Your task to perform on an android device: Search for Italian restaurants on Maps Image 0: 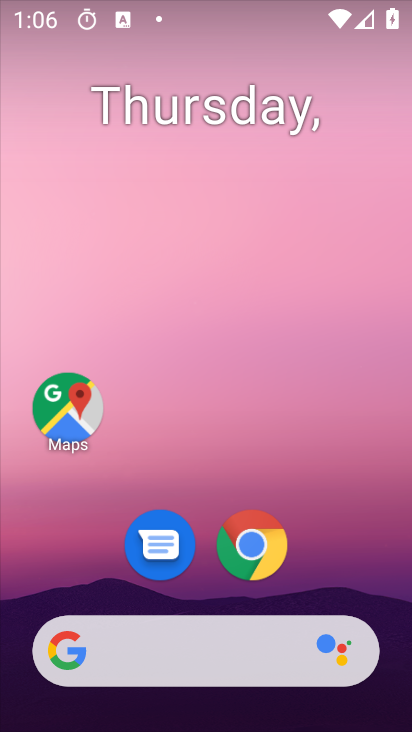
Step 0: drag from (218, 678) to (203, 1)
Your task to perform on an android device: Search for Italian restaurants on Maps Image 1: 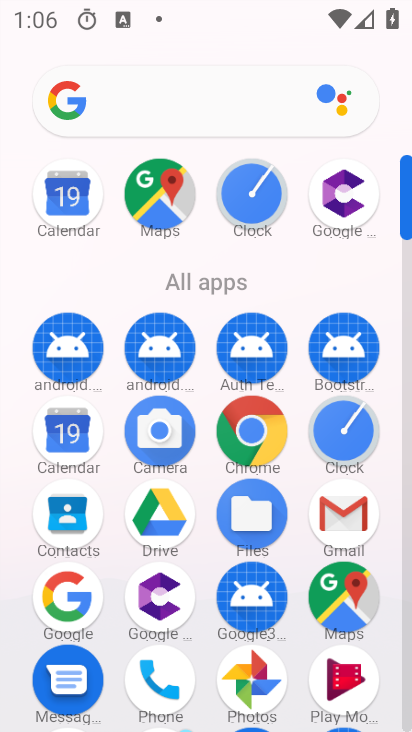
Step 1: click (337, 596)
Your task to perform on an android device: Search for Italian restaurants on Maps Image 2: 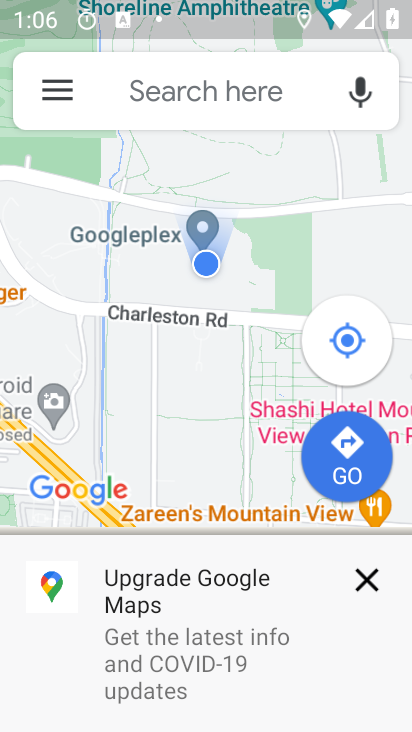
Step 2: click (231, 88)
Your task to perform on an android device: Search for Italian restaurants on Maps Image 3: 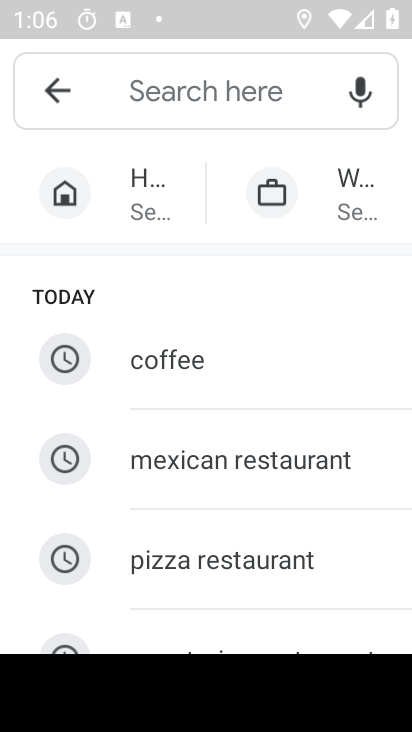
Step 3: type "italian restaurant"
Your task to perform on an android device: Search for Italian restaurants on Maps Image 4: 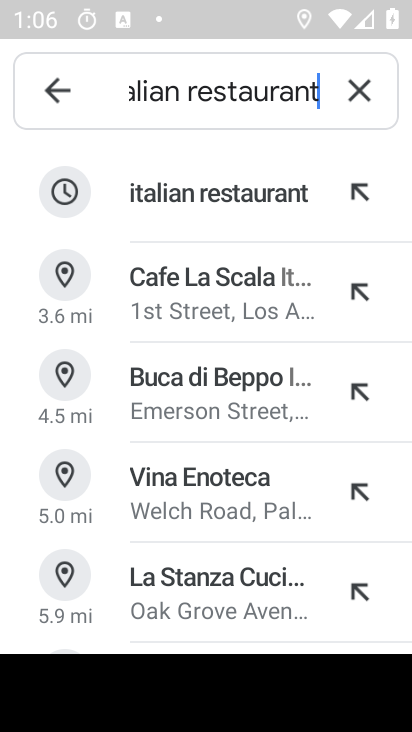
Step 4: click (233, 181)
Your task to perform on an android device: Search for Italian restaurants on Maps Image 5: 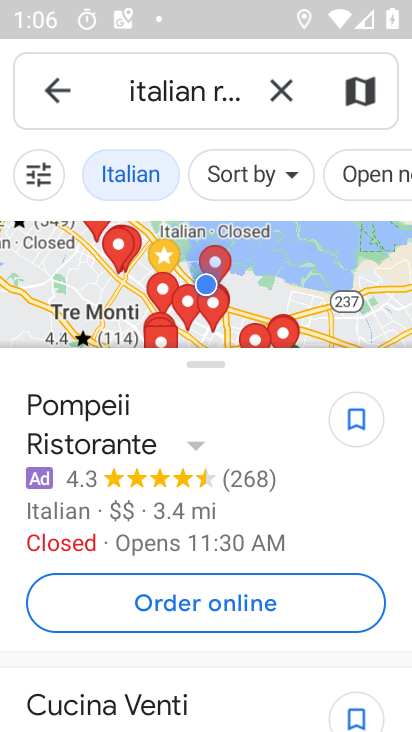
Step 5: task complete